Your task to perform on an android device: Go to settings Image 0: 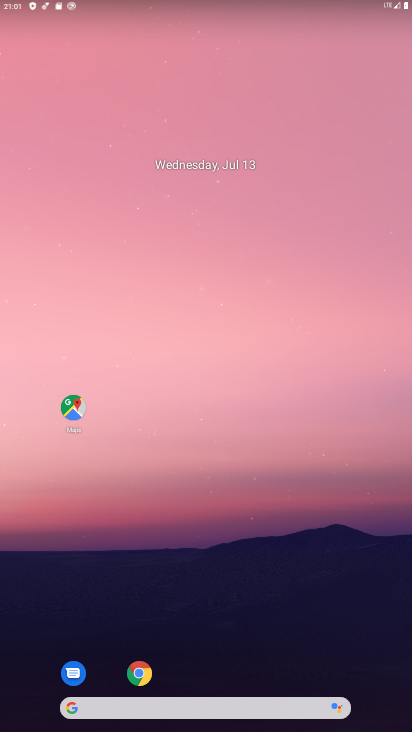
Step 0: click (214, 74)
Your task to perform on an android device: Go to settings Image 1: 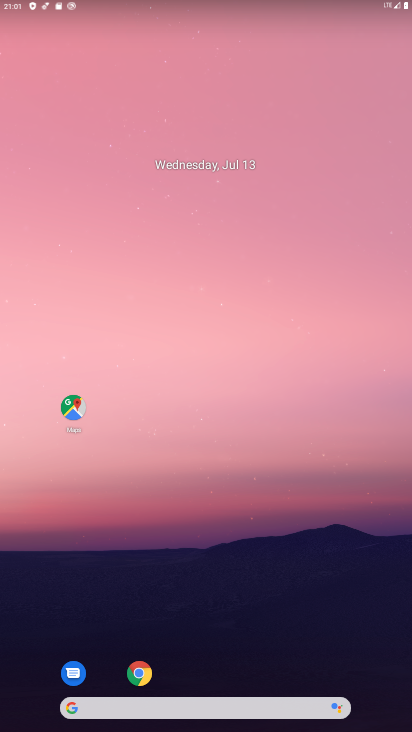
Step 1: drag from (185, 681) to (258, 178)
Your task to perform on an android device: Go to settings Image 2: 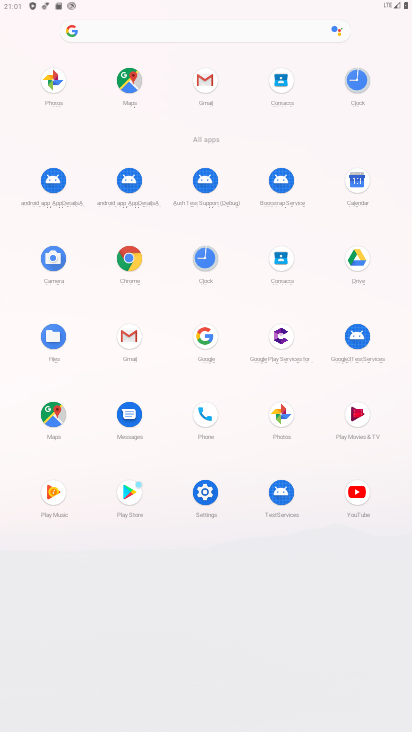
Step 2: click (159, 35)
Your task to perform on an android device: Go to settings Image 3: 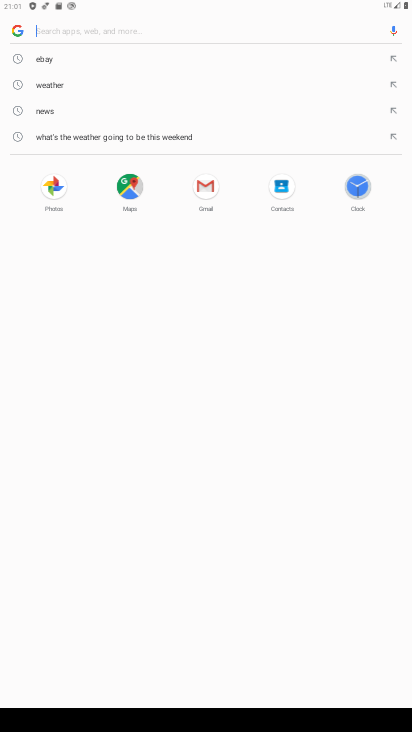
Step 3: press home button
Your task to perform on an android device: Go to settings Image 4: 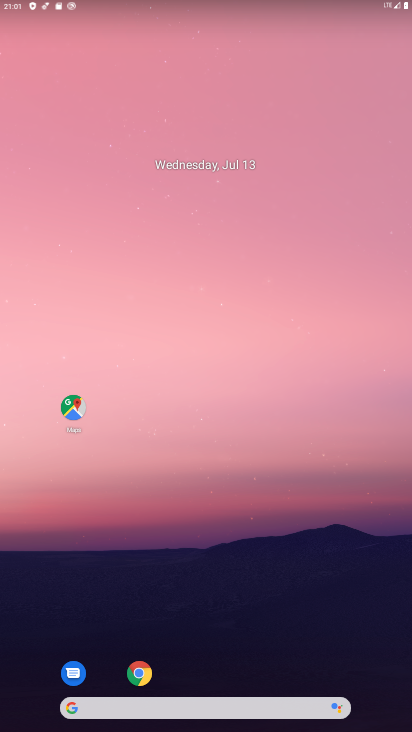
Step 4: drag from (201, 587) to (261, 115)
Your task to perform on an android device: Go to settings Image 5: 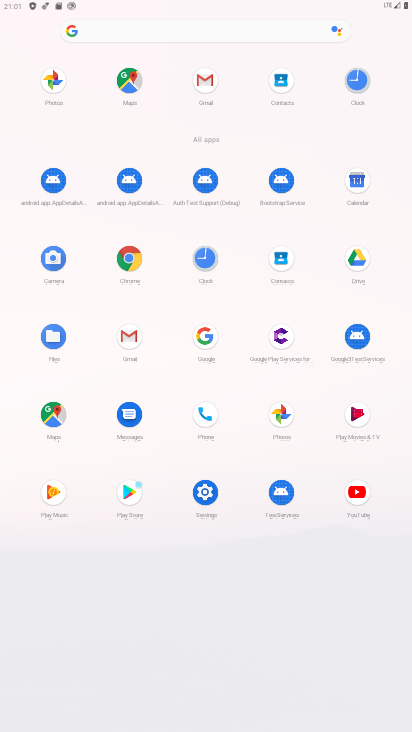
Step 5: click (198, 486)
Your task to perform on an android device: Go to settings Image 6: 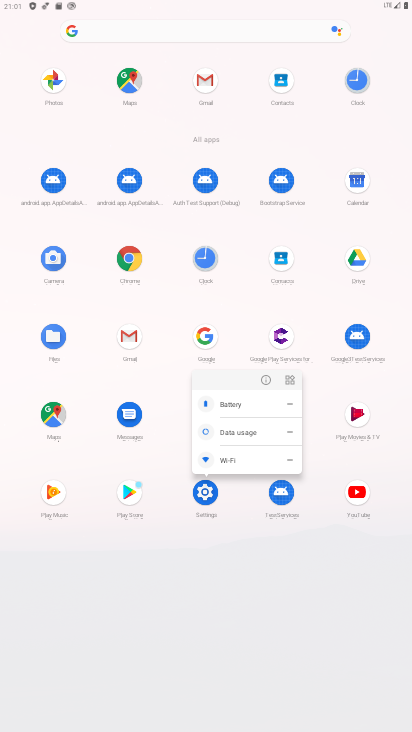
Step 6: click (269, 377)
Your task to perform on an android device: Go to settings Image 7: 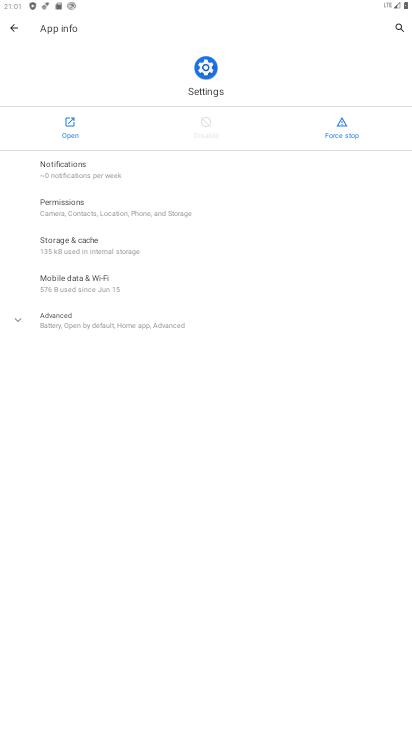
Step 7: click (68, 132)
Your task to perform on an android device: Go to settings Image 8: 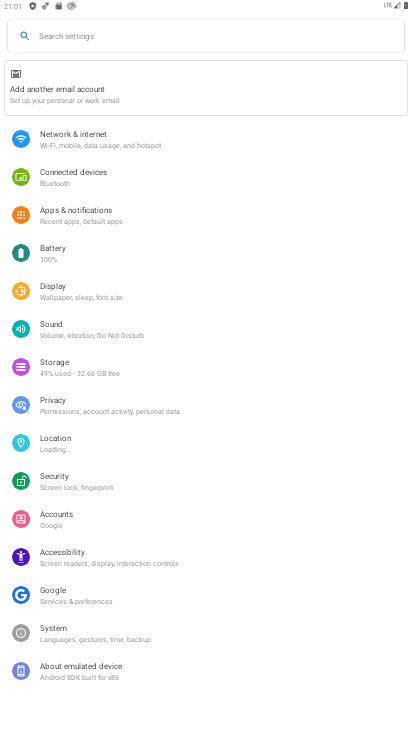
Step 8: task complete